Your task to perform on an android device: change the clock display to digital Image 0: 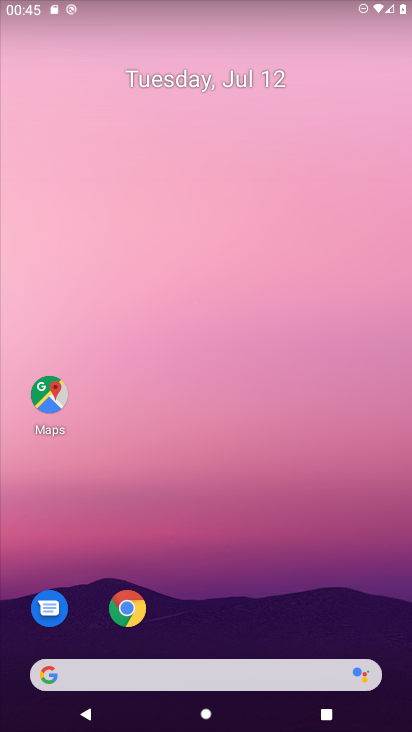
Step 0: drag from (212, 667) to (122, 43)
Your task to perform on an android device: change the clock display to digital Image 1: 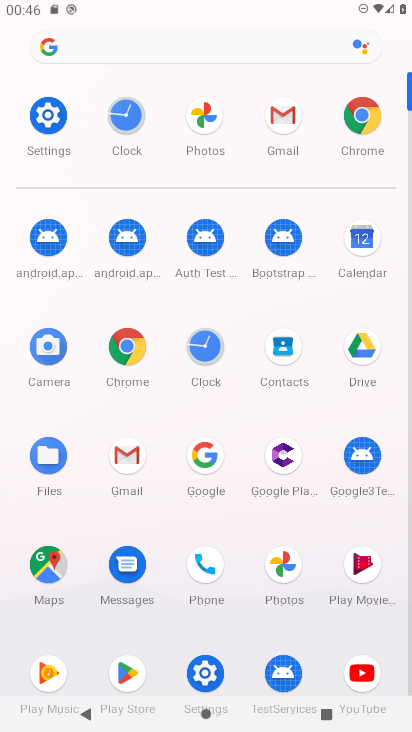
Step 1: click (208, 347)
Your task to perform on an android device: change the clock display to digital Image 2: 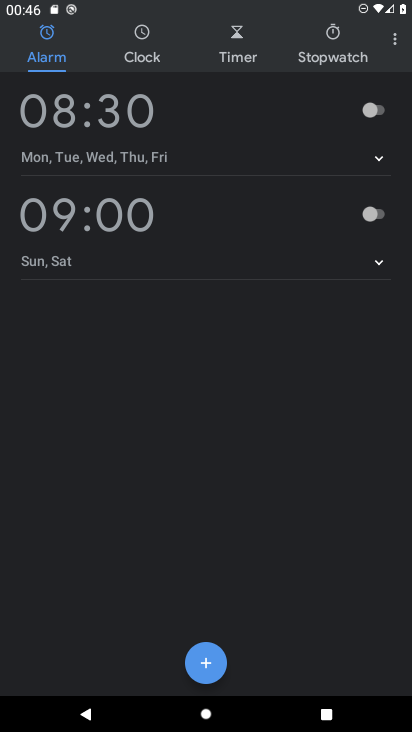
Step 2: task complete